Your task to perform on an android device: Open Reddit.com Image 0: 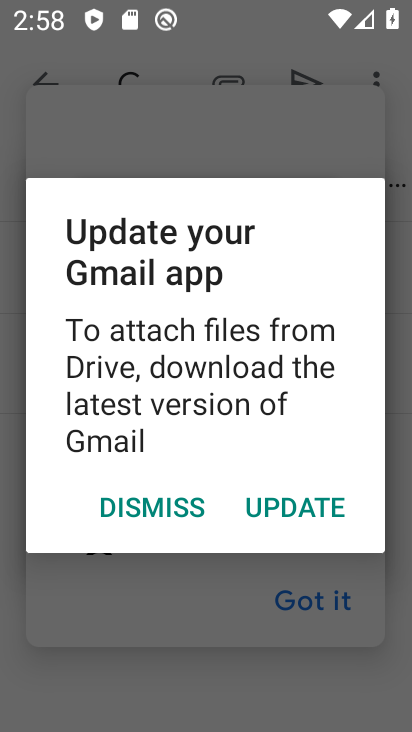
Step 0: press home button
Your task to perform on an android device: Open Reddit.com Image 1: 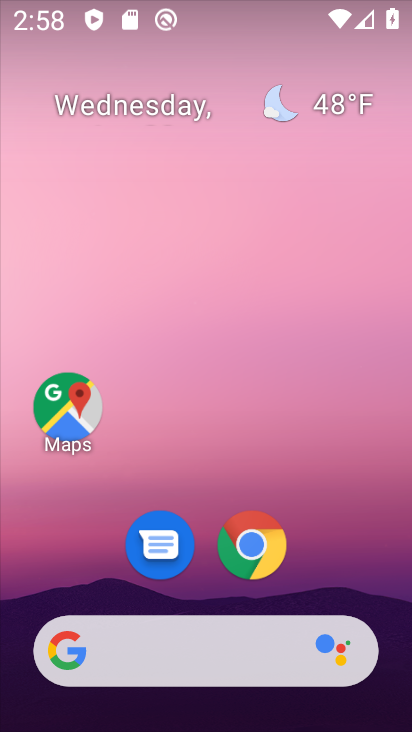
Step 1: click (260, 545)
Your task to perform on an android device: Open Reddit.com Image 2: 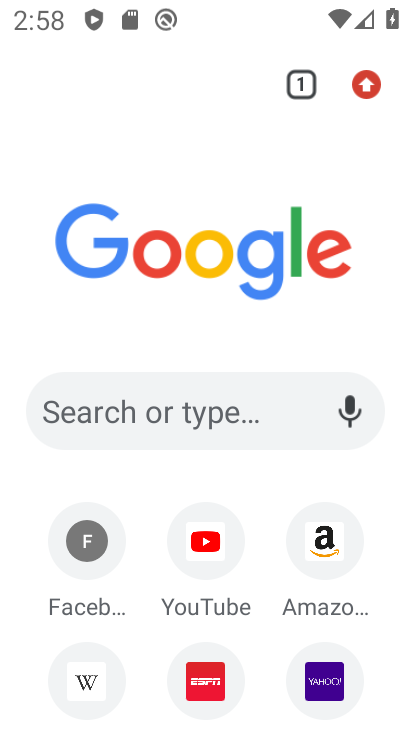
Step 2: click (210, 403)
Your task to perform on an android device: Open Reddit.com Image 3: 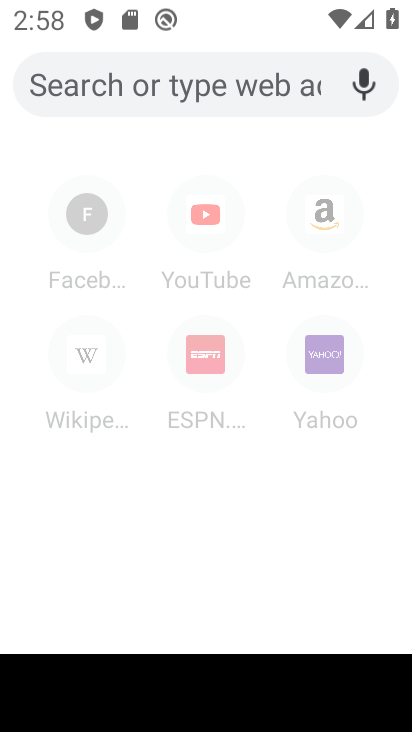
Step 3: type "reddit"
Your task to perform on an android device: Open Reddit.com Image 4: 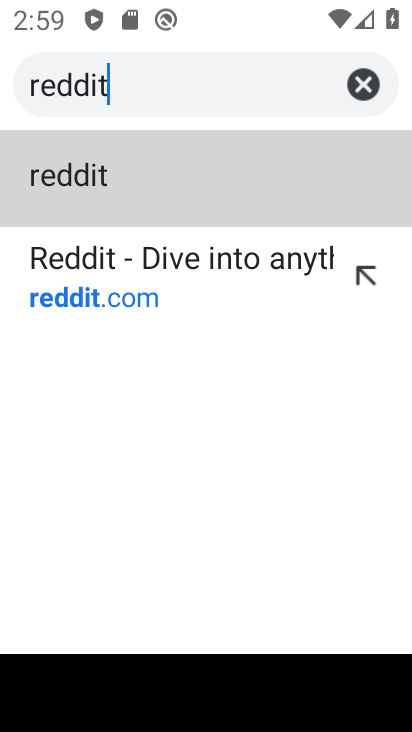
Step 4: click (134, 302)
Your task to perform on an android device: Open Reddit.com Image 5: 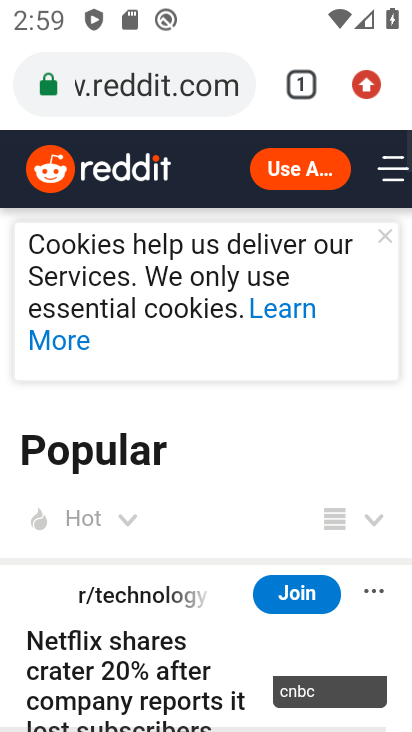
Step 5: task complete